Your task to perform on an android device: delete a single message in the gmail app Image 0: 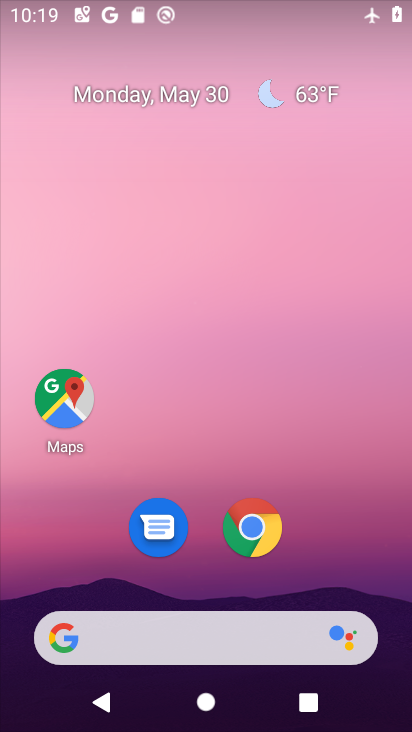
Step 0: drag from (323, 561) to (323, 205)
Your task to perform on an android device: delete a single message in the gmail app Image 1: 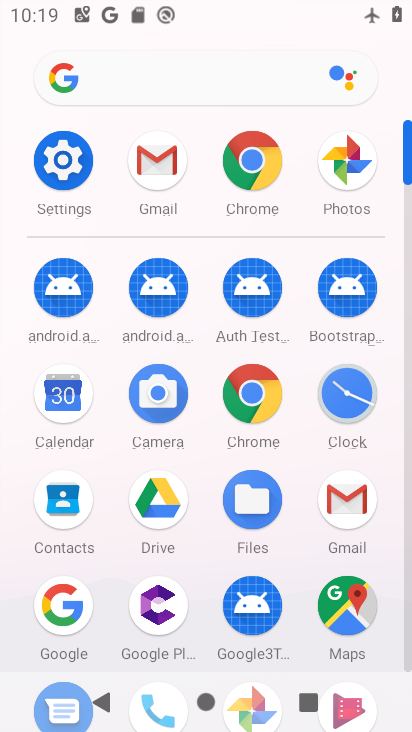
Step 1: click (346, 500)
Your task to perform on an android device: delete a single message in the gmail app Image 2: 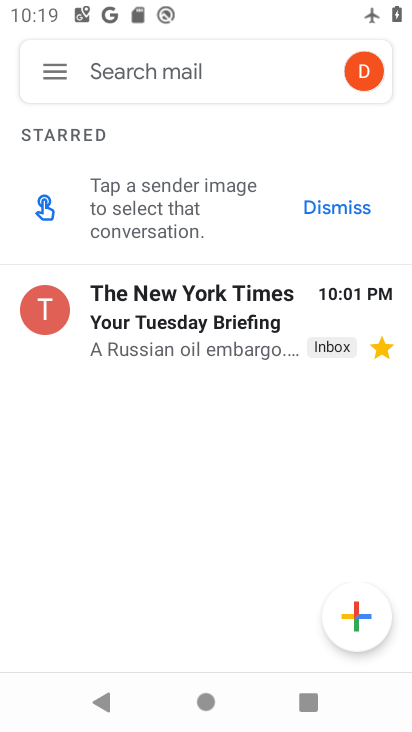
Step 2: click (56, 68)
Your task to perform on an android device: delete a single message in the gmail app Image 3: 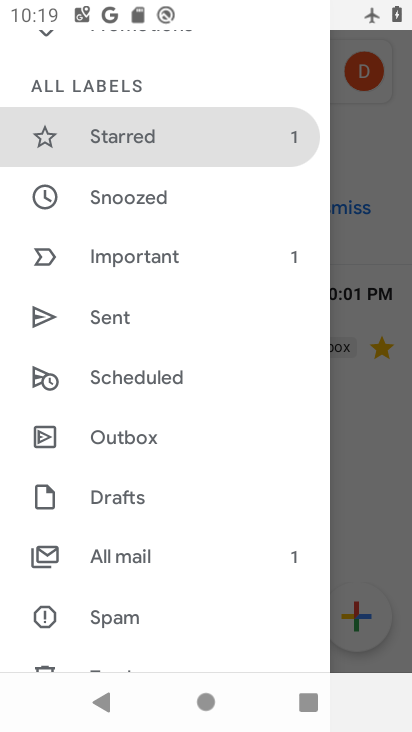
Step 3: click (143, 548)
Your task to perform on an android device: delete a single message in the gmail app Image 4: 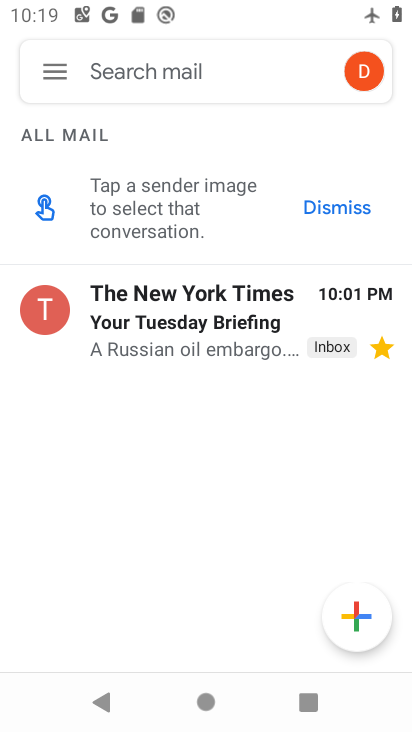
Step 4: click (43, 318)
Your task to perform on an android device: delete a single message in the gmail app Image 5: 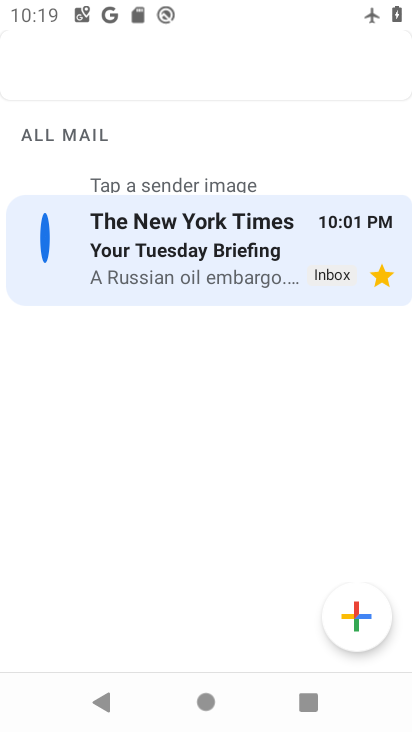
Step 5: click (43, 318)
Your task to perform on an android device: delete a single message in the gmail app Image 6: 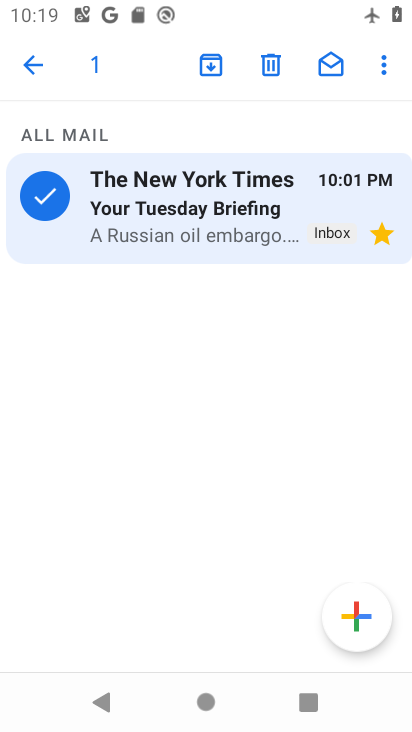
Step 6: click (268, 64)
Your task to perform on an android device: delete a single message in the gmail app Image 7: 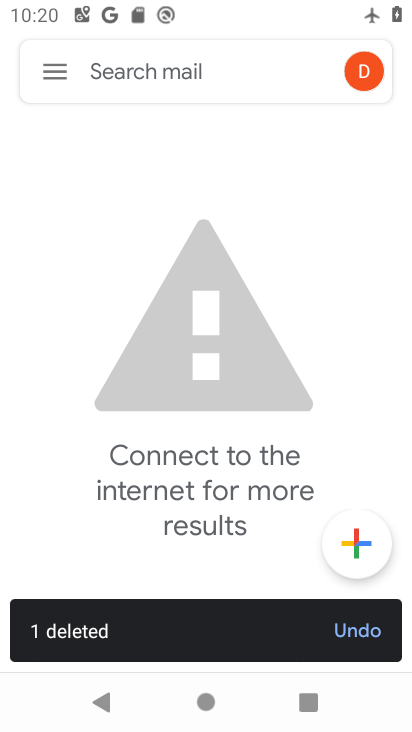
Step 7: click (345, 627)
Your task to perform on an android device: delete a single message in the gmail app Image 8: 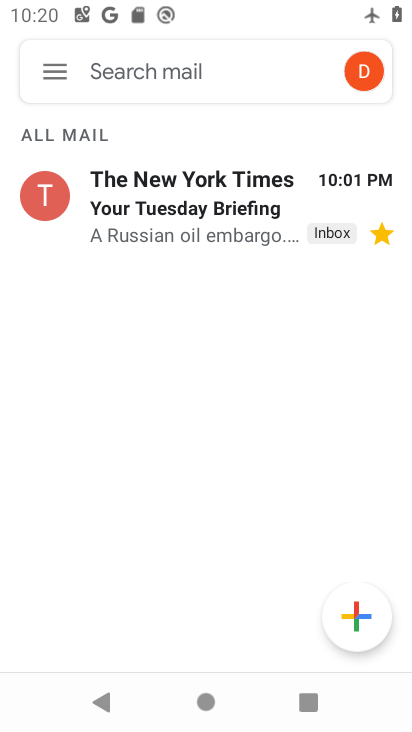
Step 8: click (40, 187)
Your task to perform on an android device: delete a single message in the gmail app Image 9: 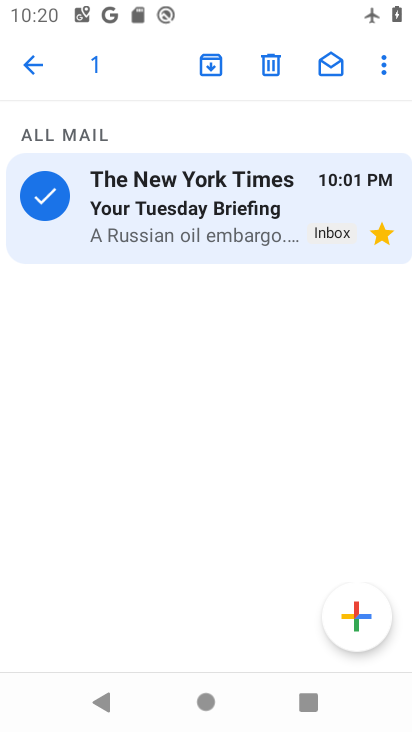
Step 9: click (278, 56)
Your task to perform on an android device: delete a single message in the gmail app Image 10: 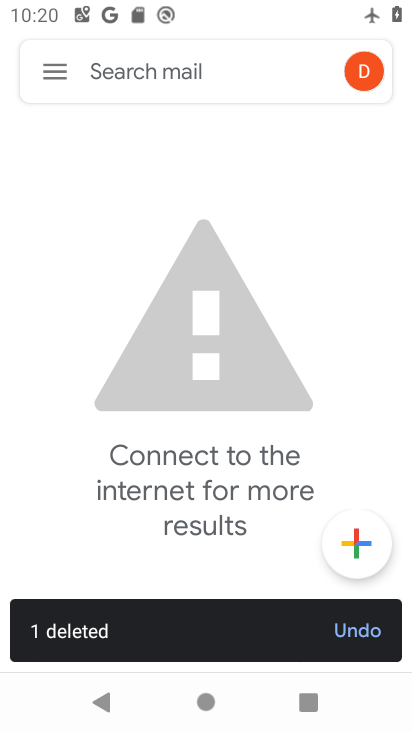
Step 10: click (338, 637)
Your task to perform on an android device: delete a single message in the gmail app Image 11: 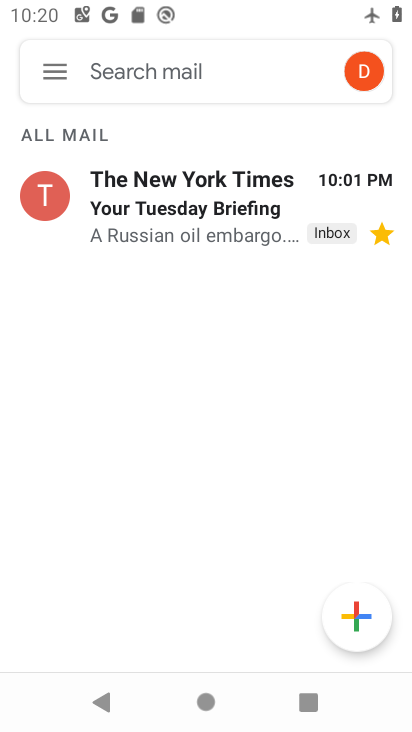
Step 11: task complete